Your task to perform on an android device: What's on my calendar tomorrow? Image 0: 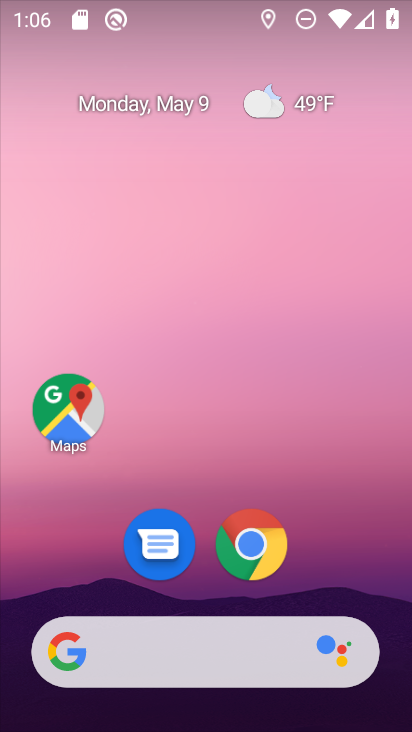
Step 0: drag from (368, 502) to (321, 109)
Your task to perform on an android device: What's on my calendar tomorrow? Image 1: 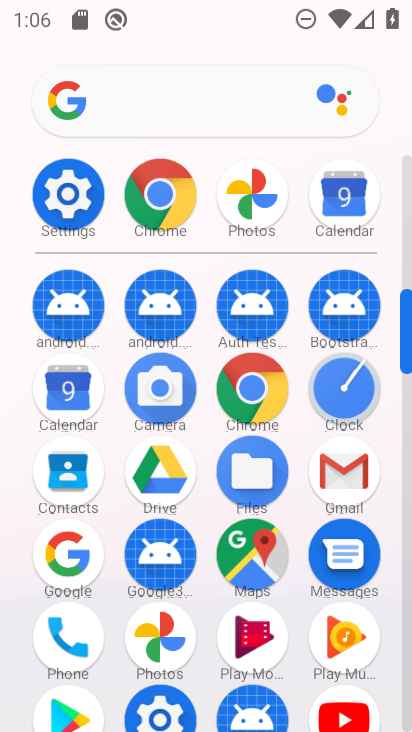
Step 1: click (48, 396)
Your task to perform on an android device: What's on my calendar tomorrow? Image 2: 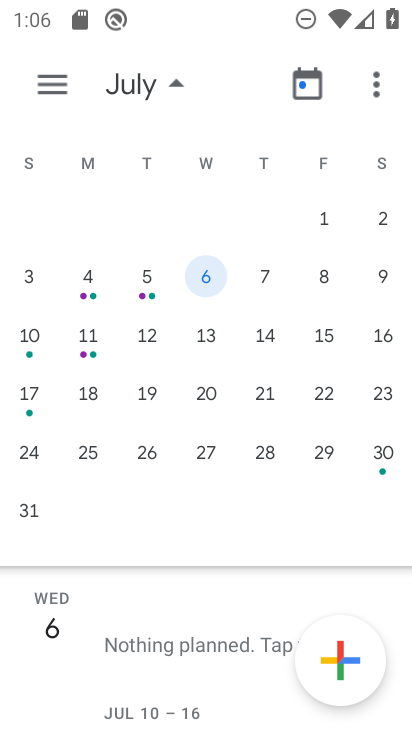
Step 2: click (257, 280)
Your task to perform on an android device: What's on my calendar tomorrow? Image 3: 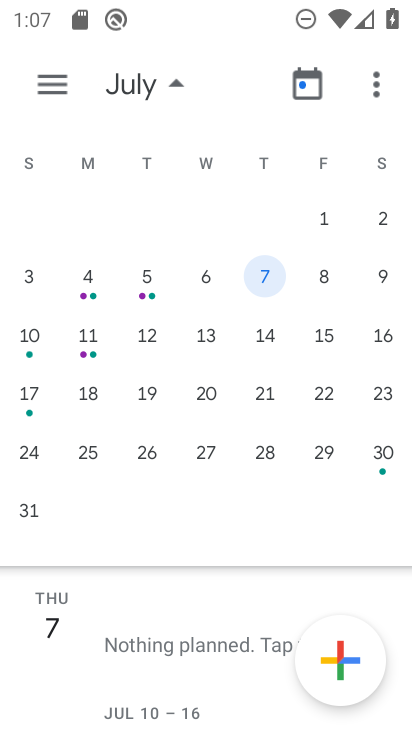
Step 3: task complete